Your task to perform on an android device: turn on airplane mode Image 0: 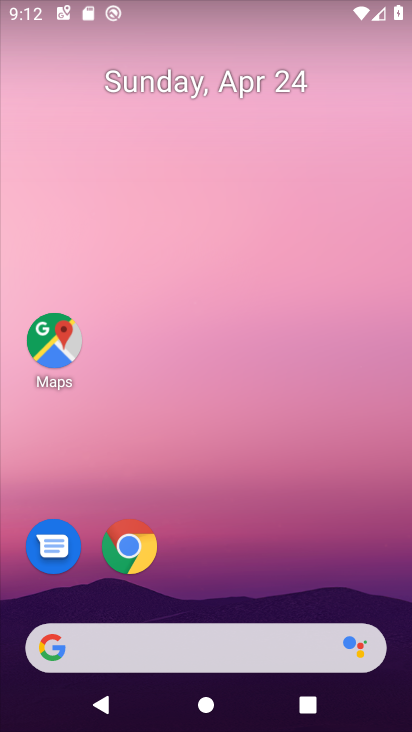
Step 0: drag from (289, 467) to (318, 247)
Your task to perform on an android device: turn on airplane mode Image 1: 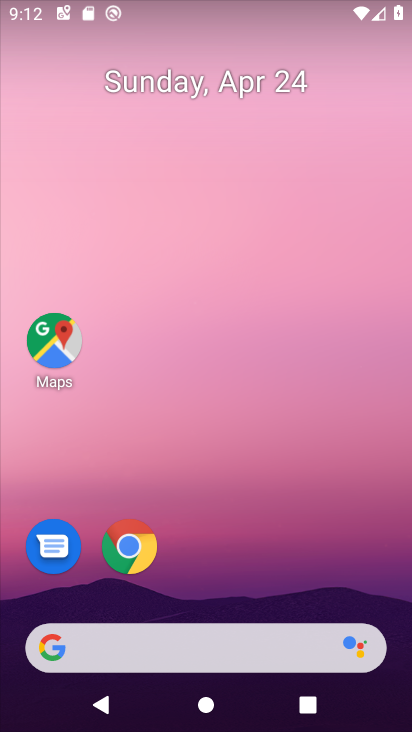
Step 1: drag from (253, 553) to (264, 205)
Your task to perform on an android device: turn on airplane mode Image 2: 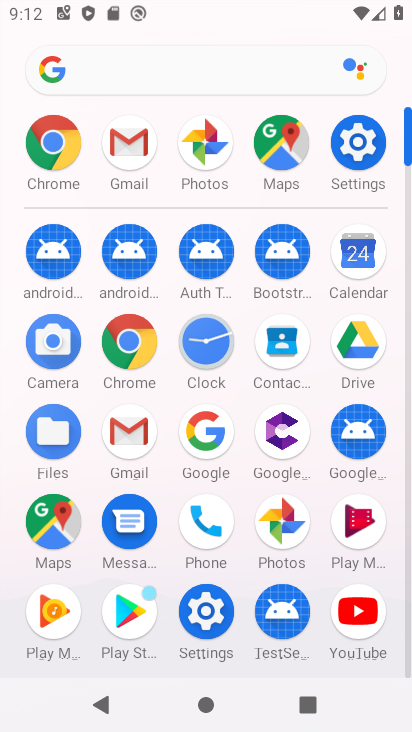
Step 2: click (360, 147)
Your task to perform on an android device: turn on airplane mode Image 3: 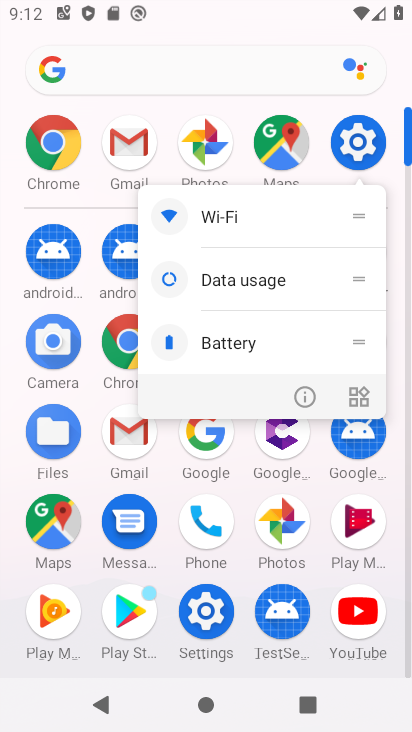
Step 3: click (362, 138)
Your task to perform on an android device: turn on airplane mode Image 4: 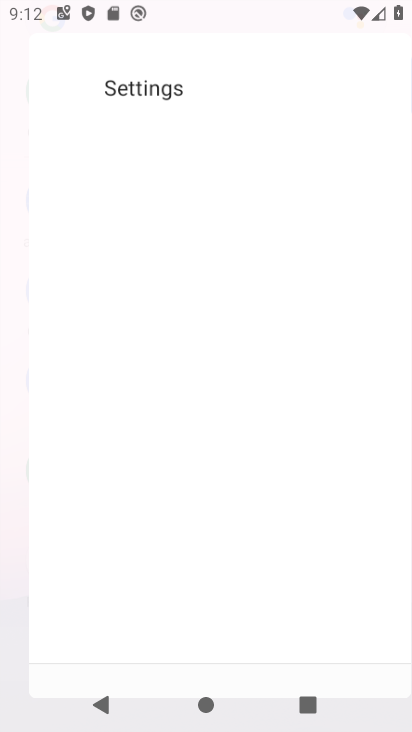
Step 4: click (356, 132)
Your task to perform on an android device: turn on airplane mode Image 5: 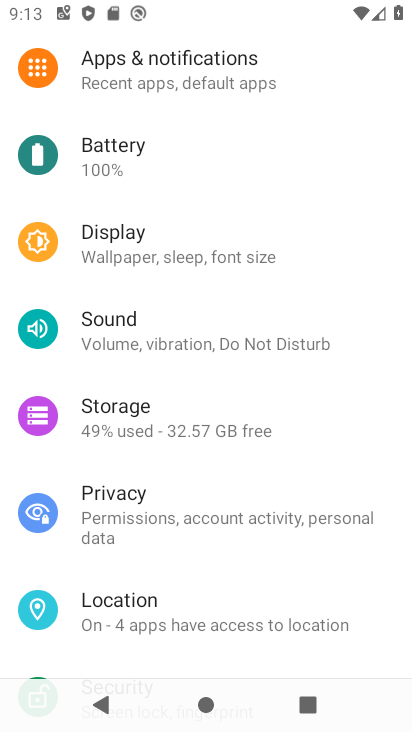
Step 5: drag from (259, 129) to (229, 649)
Your task to perform on an android device: turn on airplane mode Image 6: 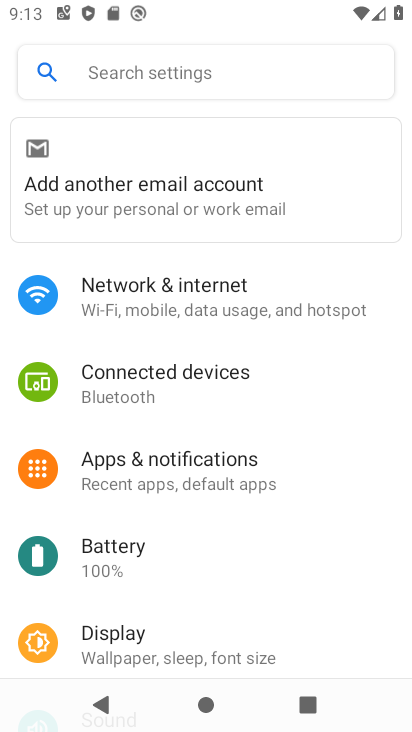
Step 6: click (126, 276)
Your task to perform on an android device: turn on airplane mode Image 7: 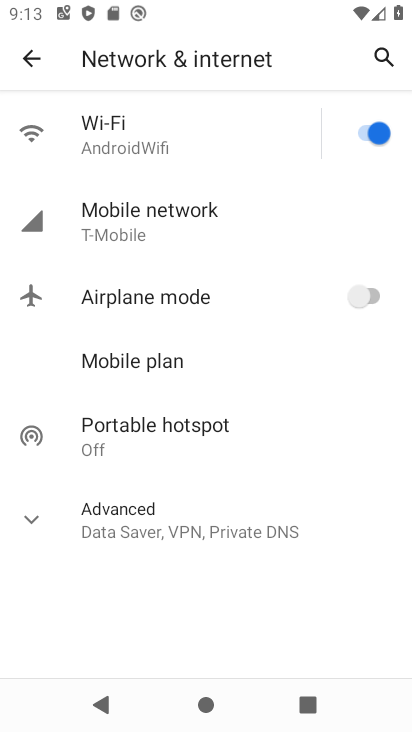
Step 7: click (354, 295)
Your task to perform on an android device: turn on airplane mode Image 8: 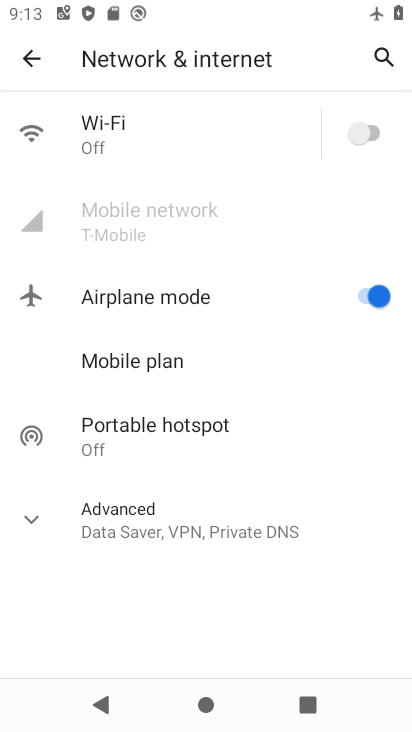
Step 8: task complete